Your task to perform on an android device: open app "Messenger Lite" (install if not already installed) Image 0: 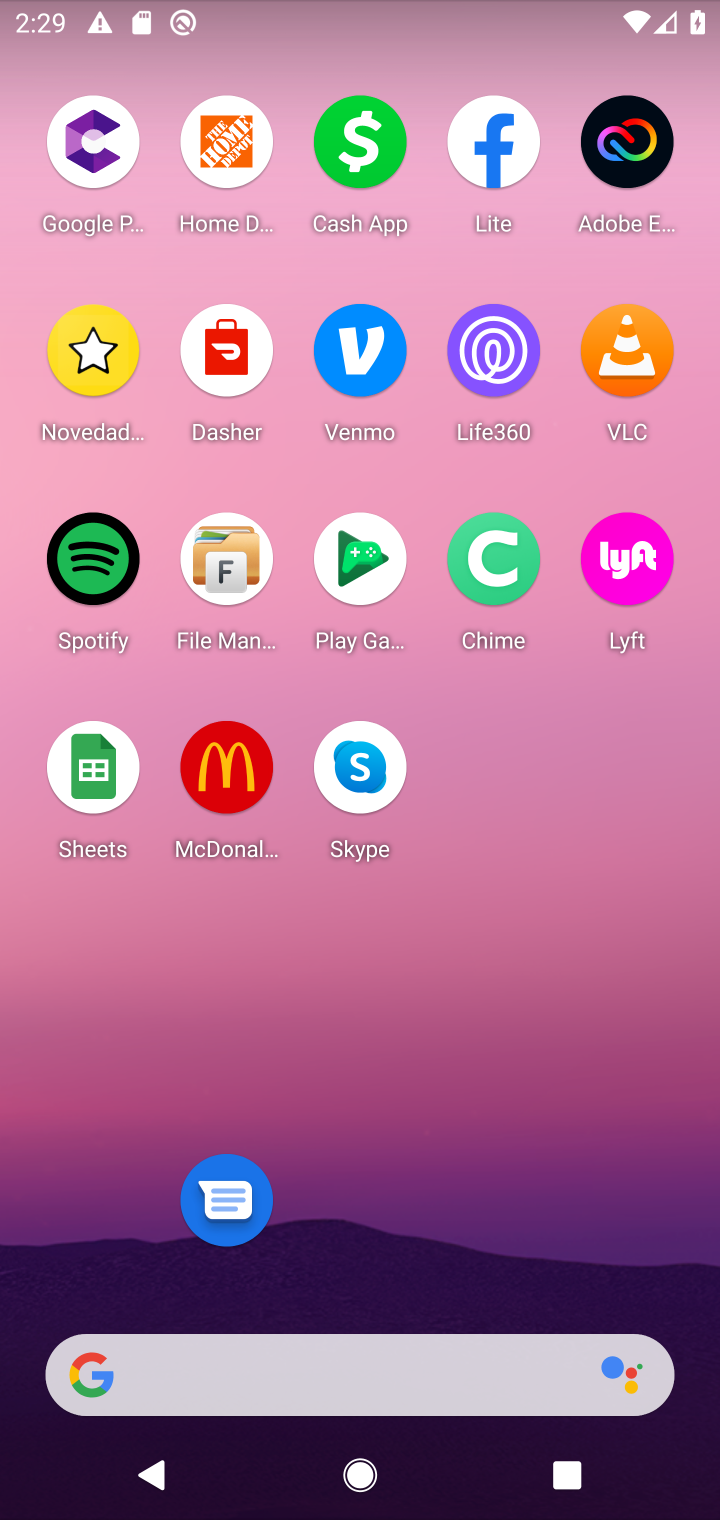
Step 0: drag from (507, 1250) to (477, 106)
Your task to perform on an android device: open app "Messenger Lite" (install if not already installed) Image 1: 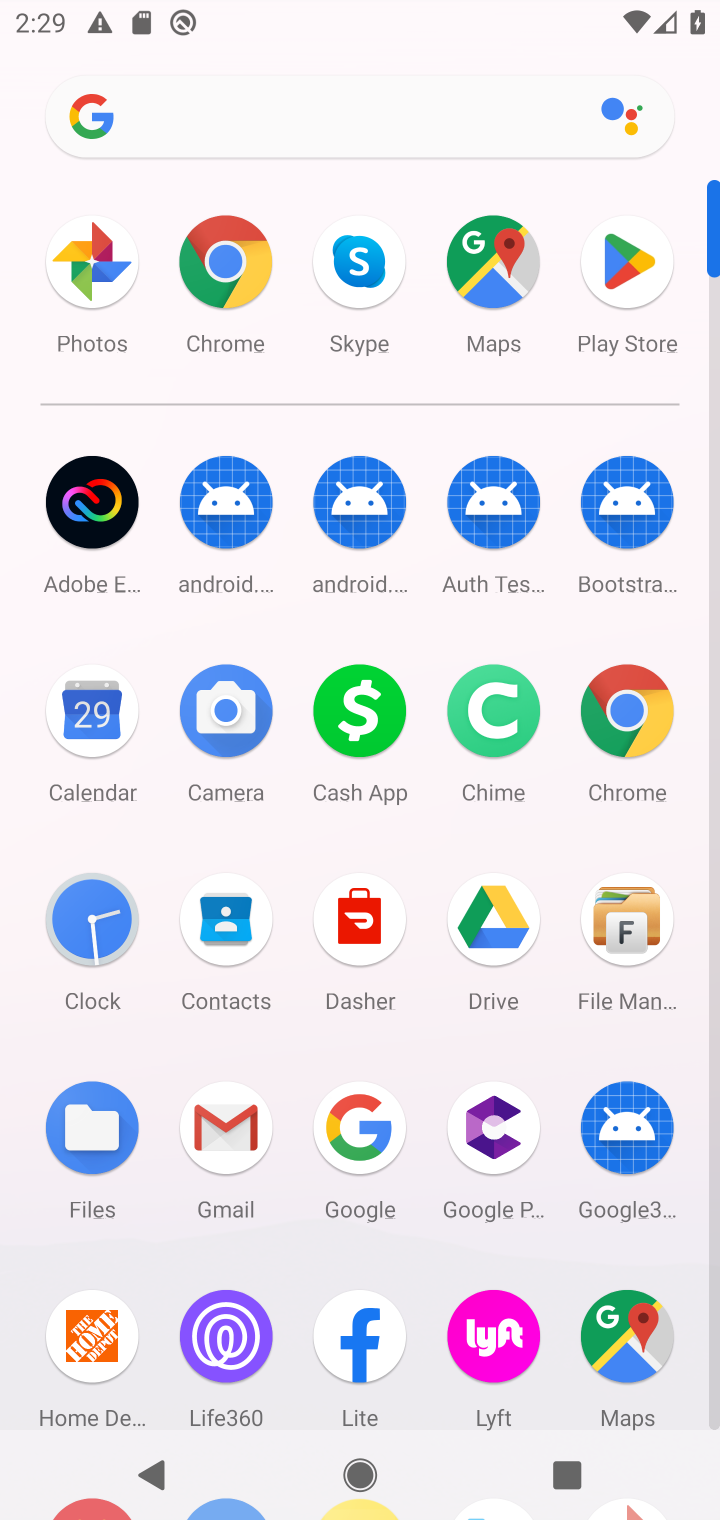
Step 1: click (633, 259)
Your task to perform on an android device: open app "Messenger Lite" (install if not already installed) Image 2: 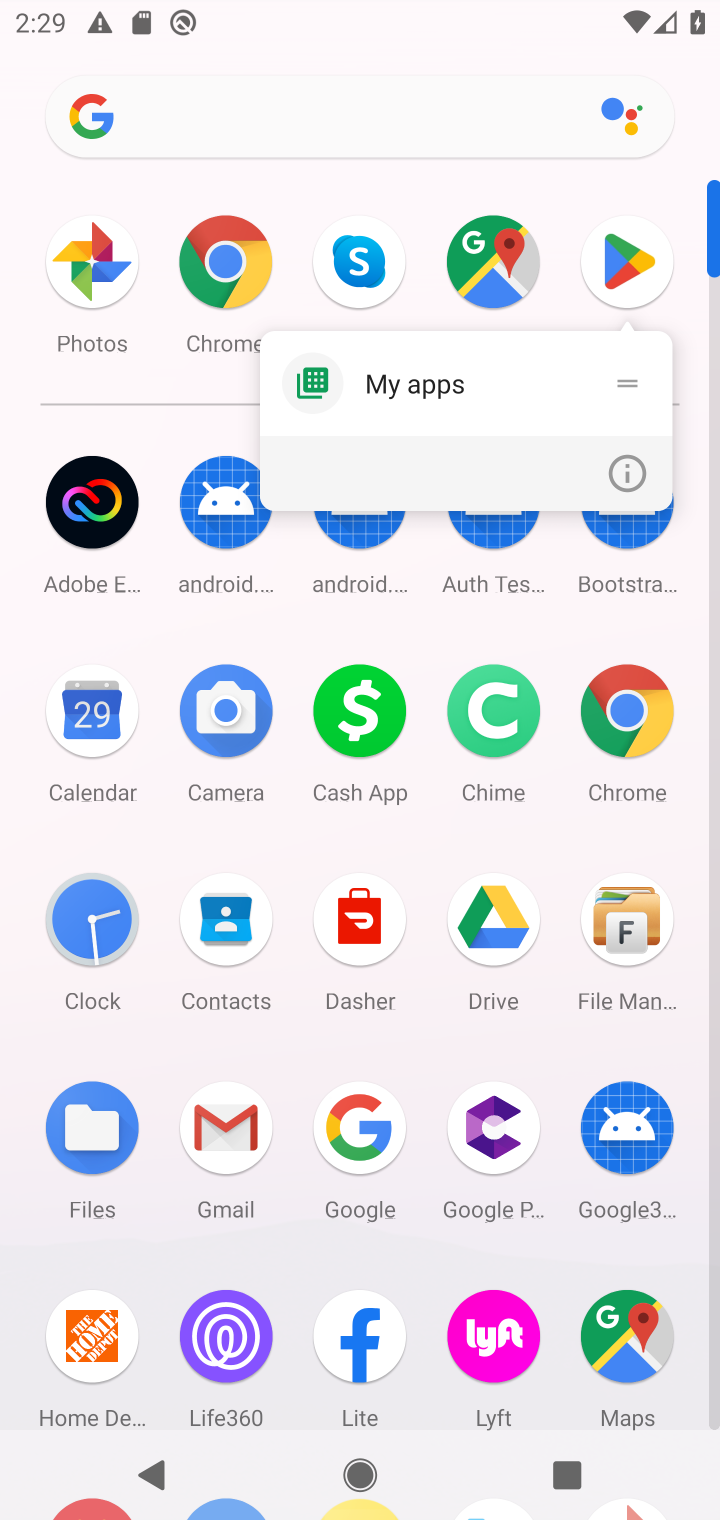
Step 2: click (618, 253)
Your task to perform on an android device: open app "Messenger Lite" (install if not already installed) Image 3: 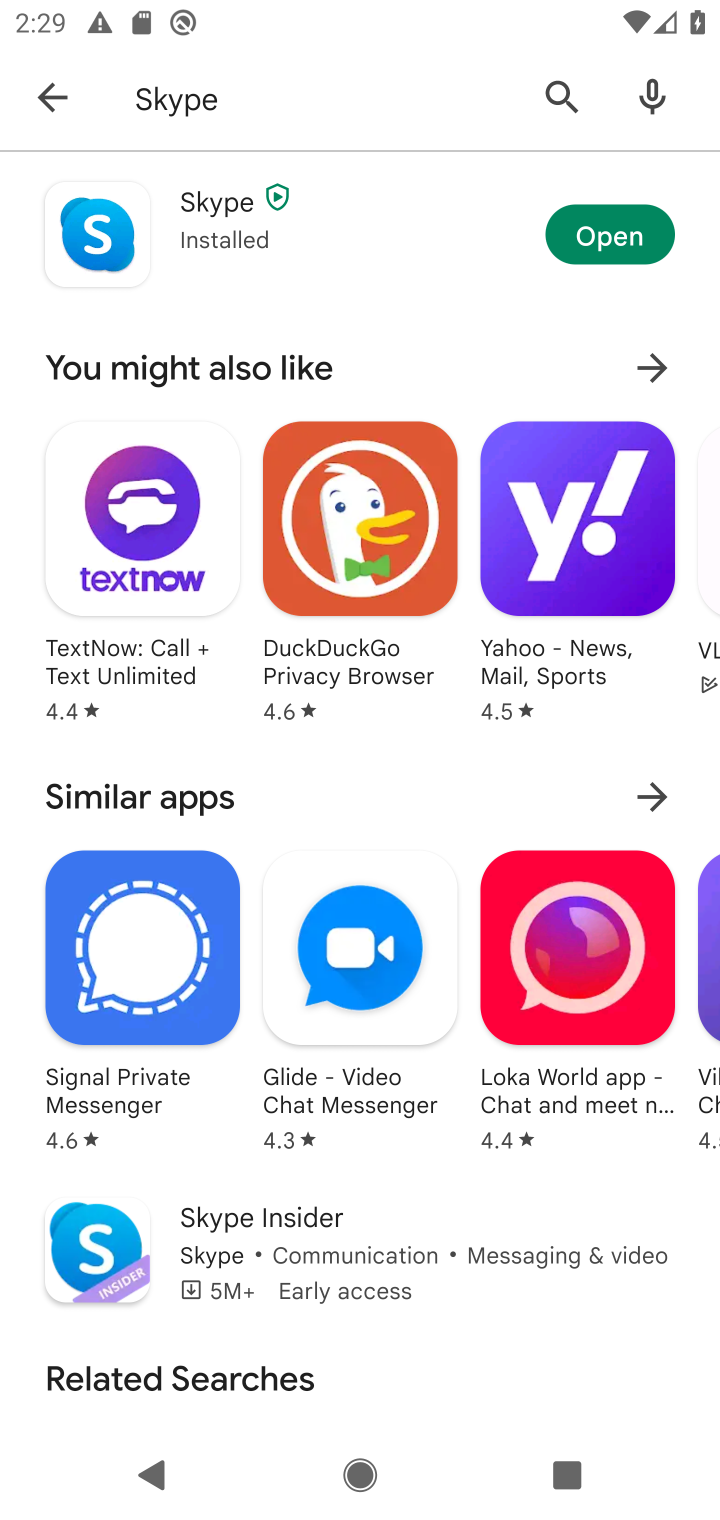
Step 3: click (347, 116)
Your task to perform on an android device: open app "Messenger Lite" (install if not already installed) Image 4: 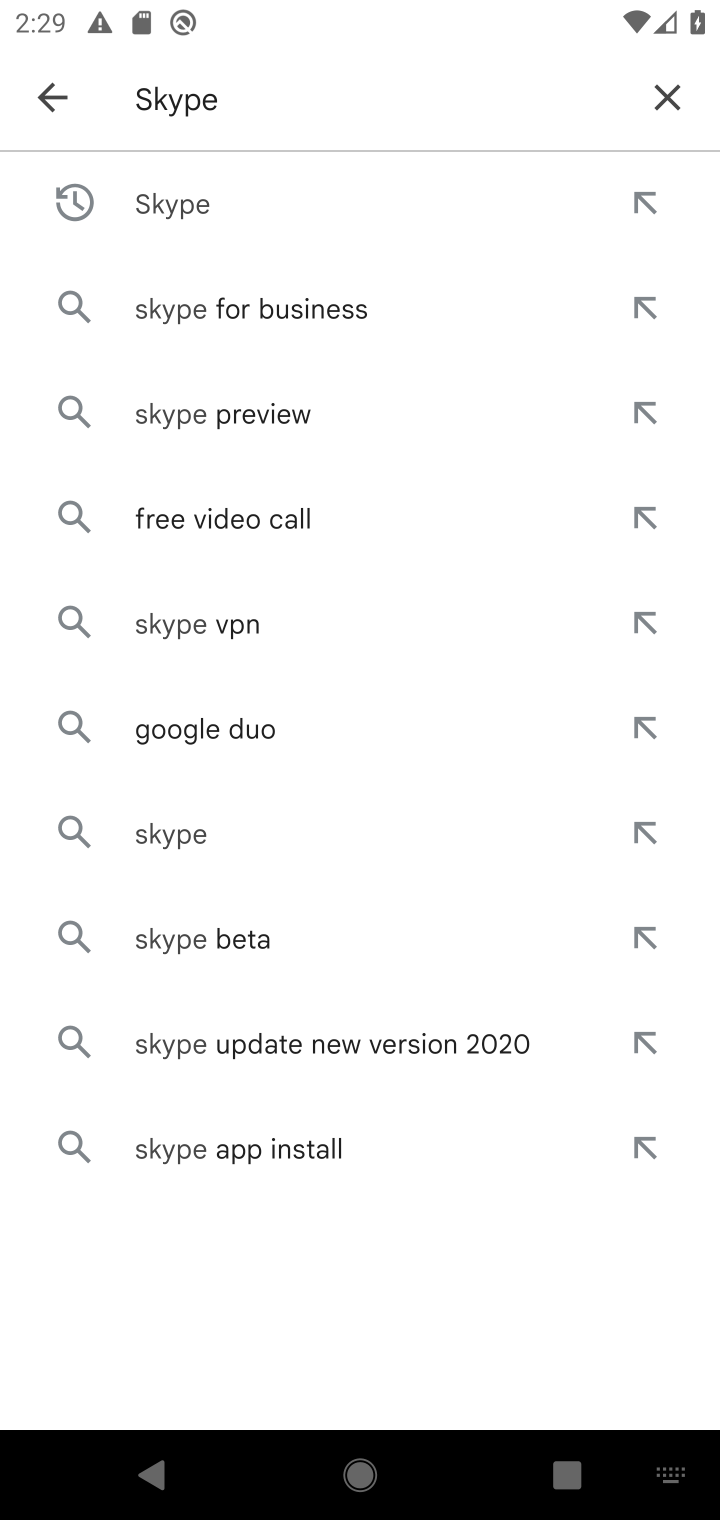
Step 4: click (676, 85)
Your task to perform on an android device: open app "Messenger Lite" (install if not already installed) Image 5: 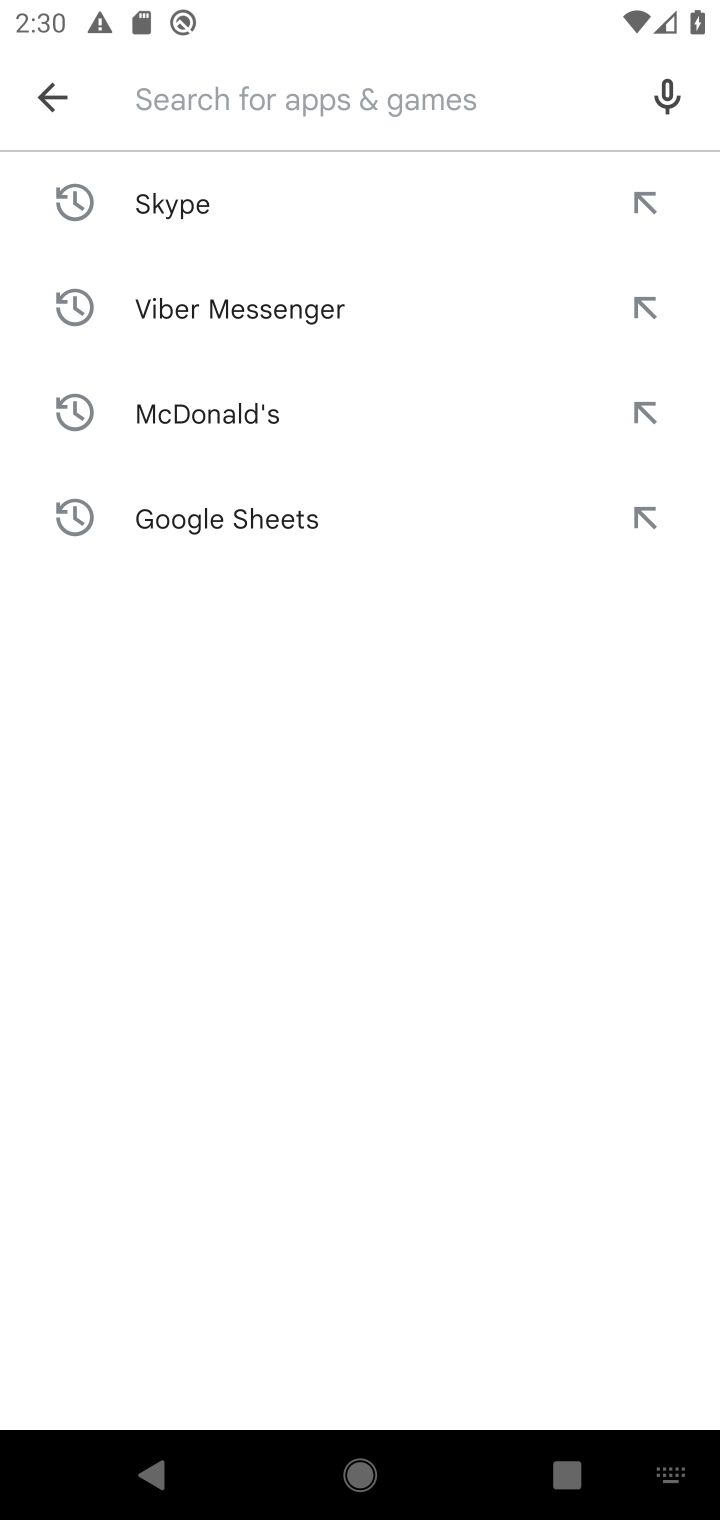
Step 5: type "Messenger Lite"
Your task to perform on an android device: open app "Messenger Lite" (install if not already installed) Image 6: 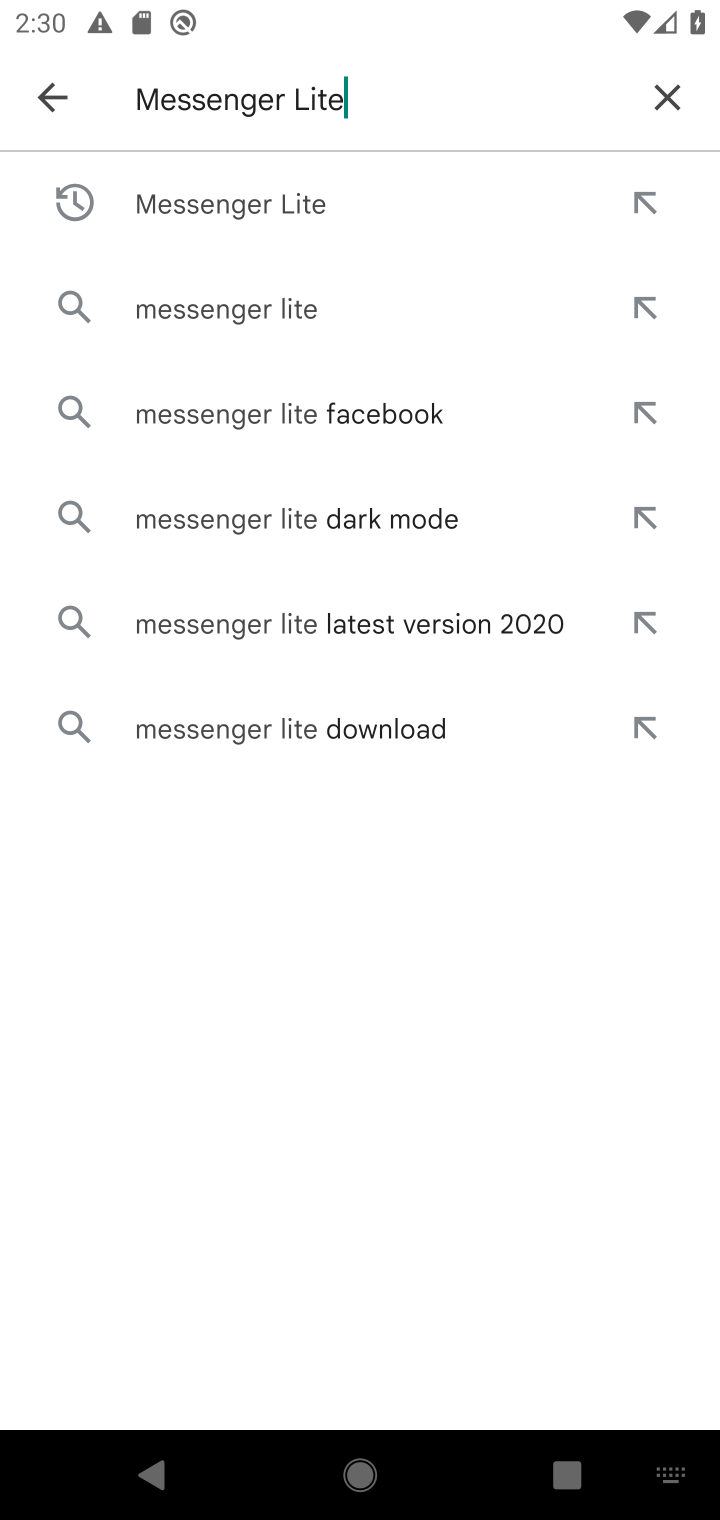
Step 6: press enter
Your task to perform on an android device: open app "Messenger Lite" (install if not already installed) Image 7: 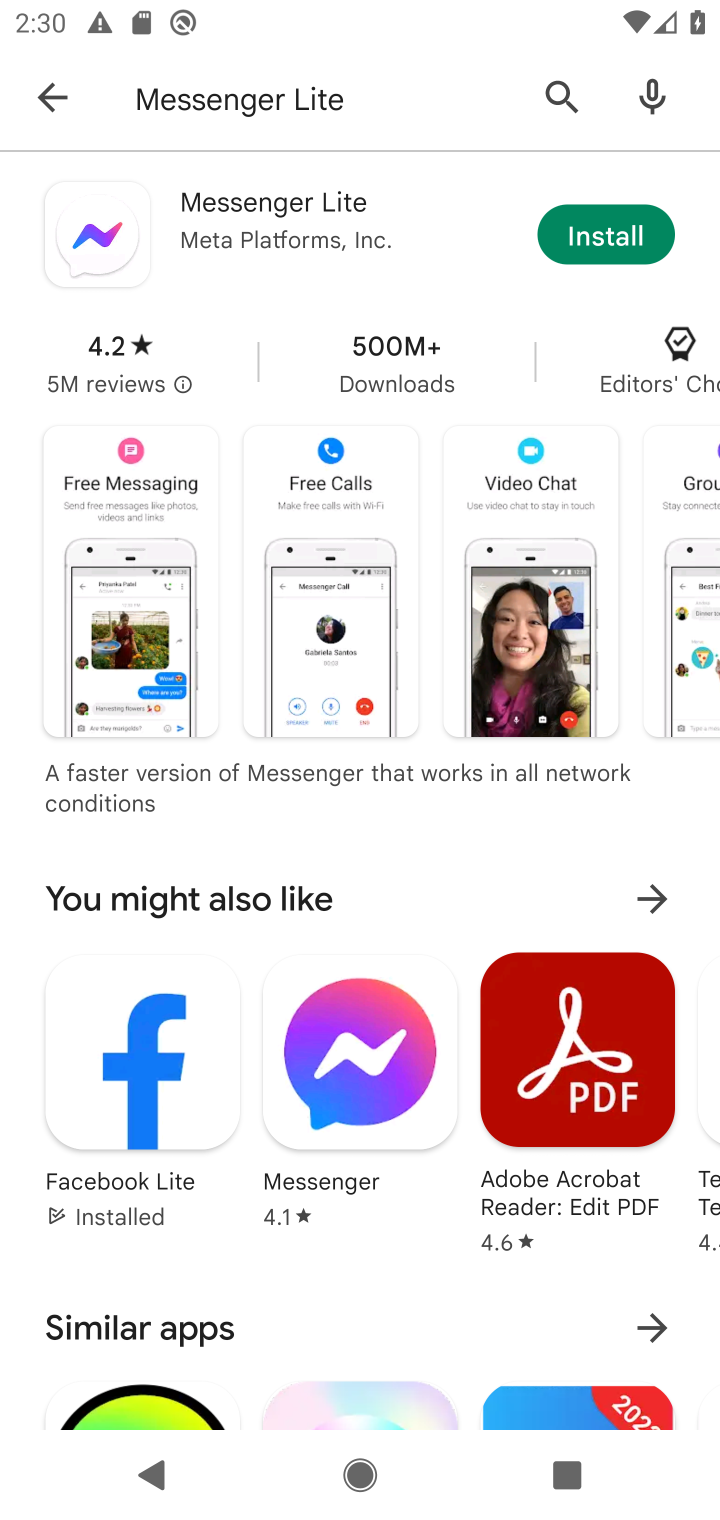
Step 7: click (624, 251)
Your task to perform on an android device: open app "Messenger Lite" (install if not already installed) Image 8: 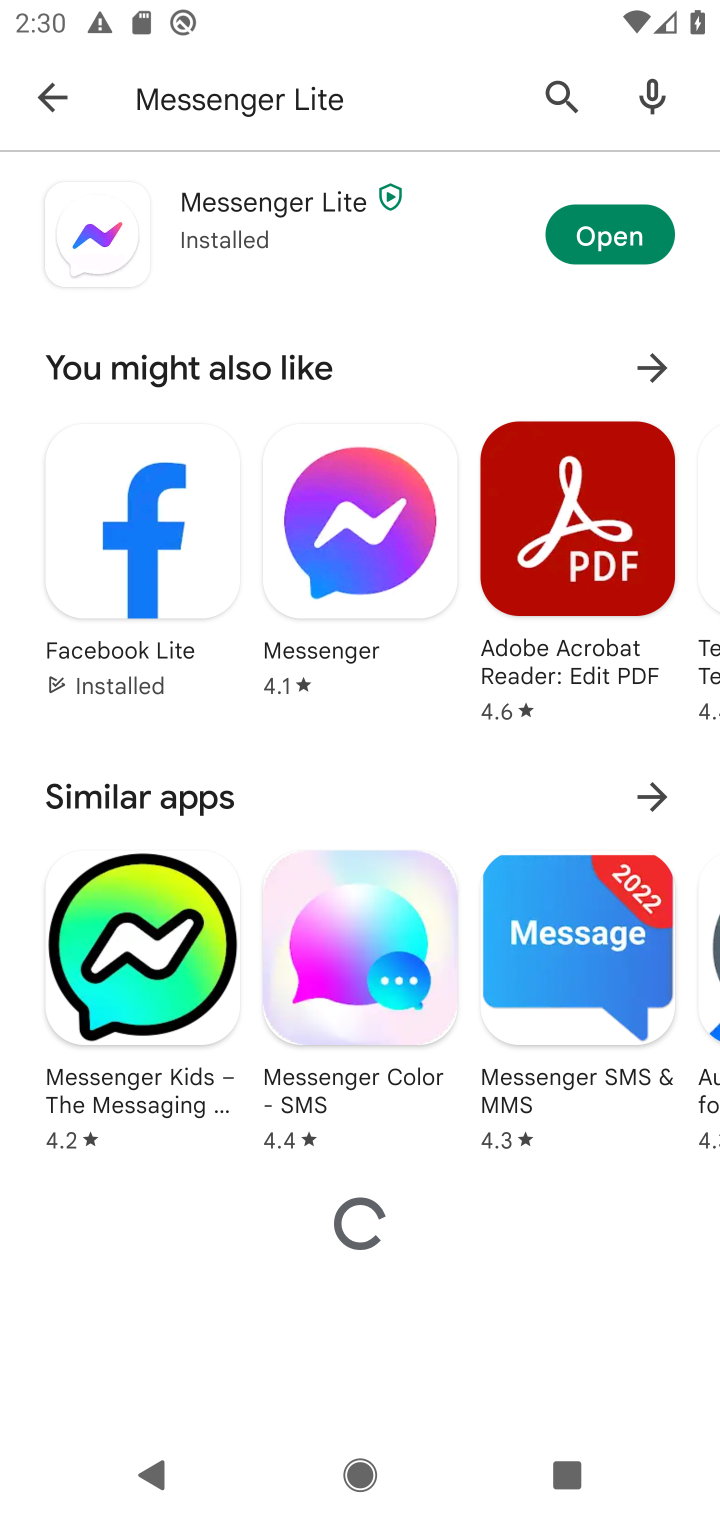
Step 8: click (643, 247)
Your task to perform on an android device: open app "Messenger Lite" (install if not already installed) Image 9: 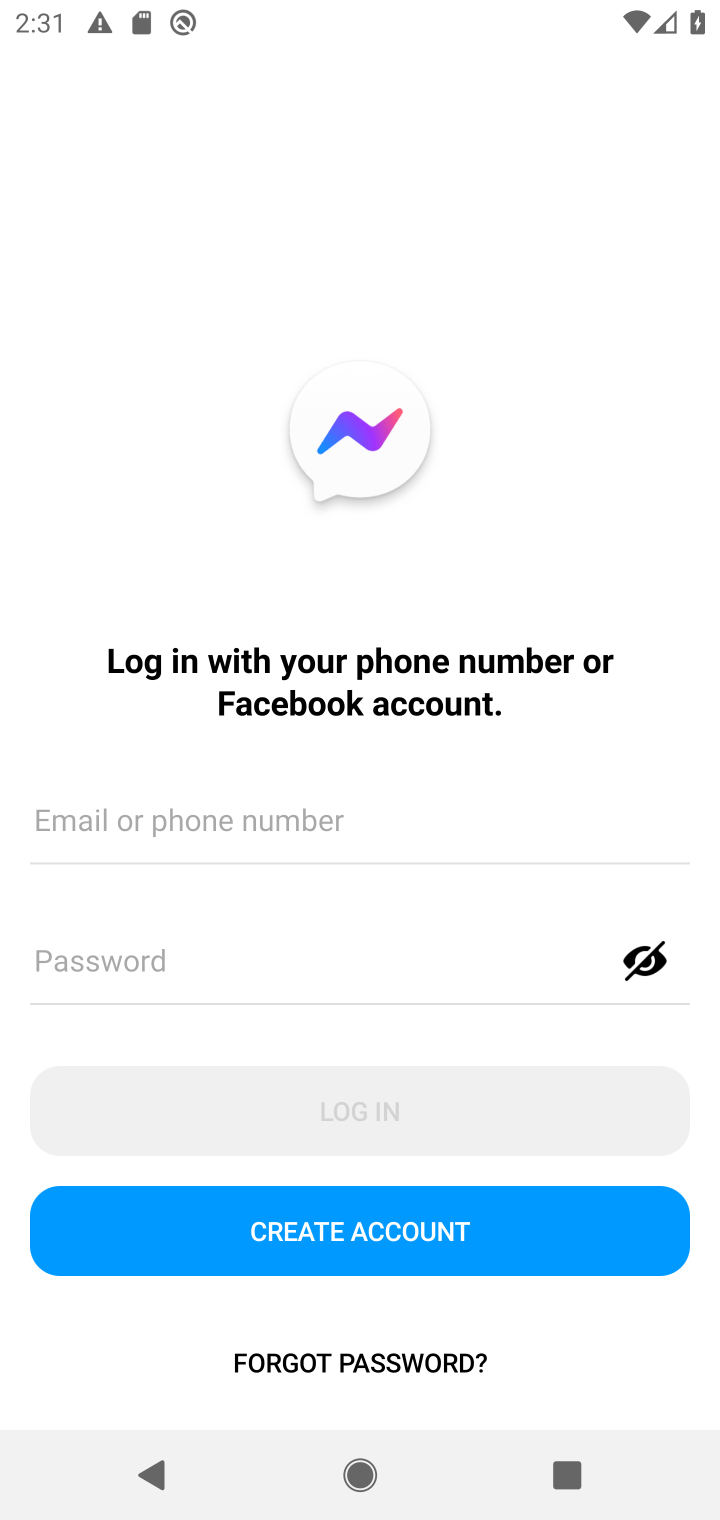
Step 9: task complete